Your task to perform on an android device: toggle airplane mode Image 0: 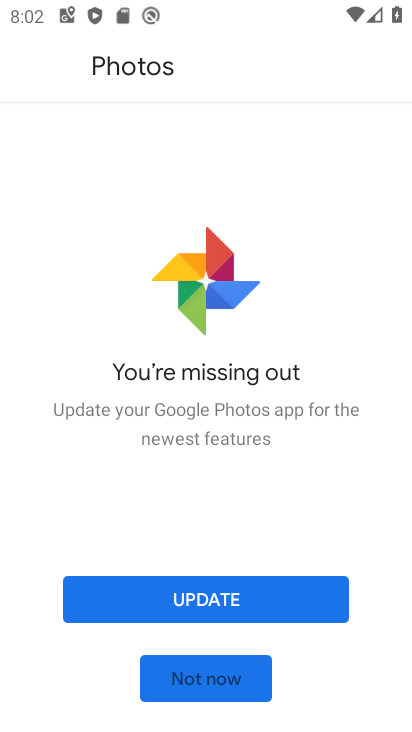
Step 0: press home button
Your task to perform on an android device: toggle airplane mode Image 1: 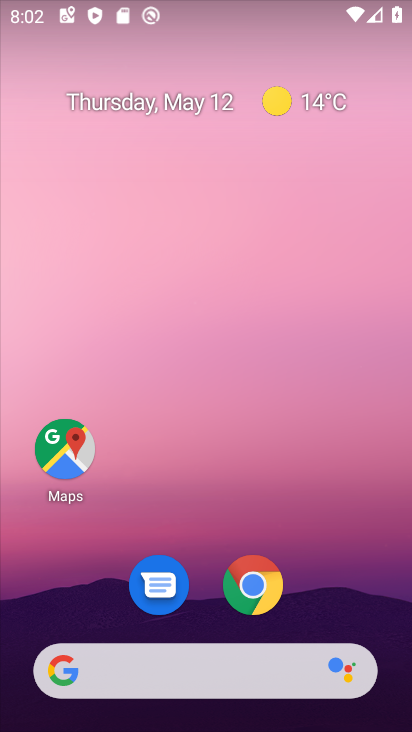
Step 1: drag from (268, 422) to (196, 54)
Your task to perform on an android device: toggle airplane mode Image 2: 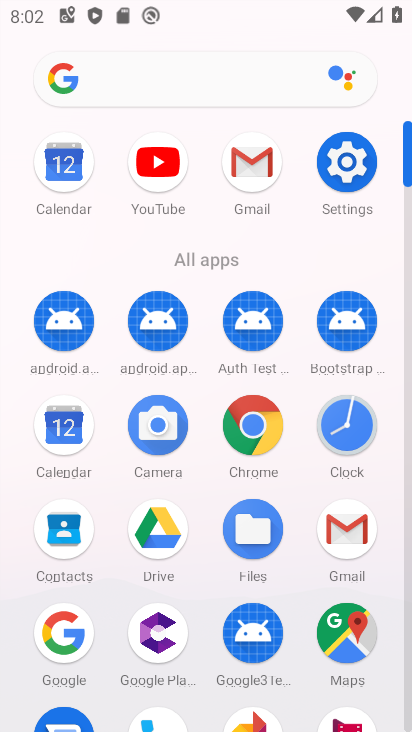
Step 2: click (346, 161)
Your task to perform on an android device: toggle airplane mode Image 3: 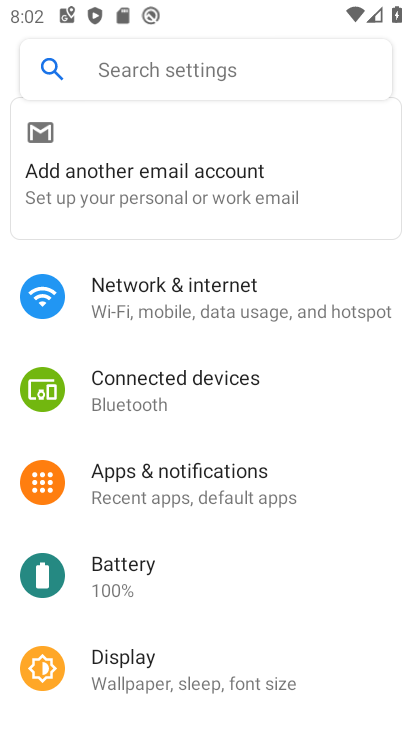
Step 3: click (246, 282)
Your task to perform on an android device: toggle airplane mode Image 4: 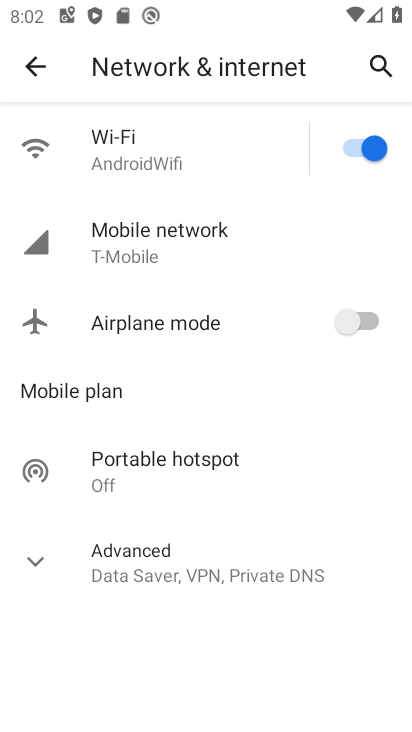
Step 4: click (358, 312)
Your task to perform on an android device: toggle airplane mode Image 5: 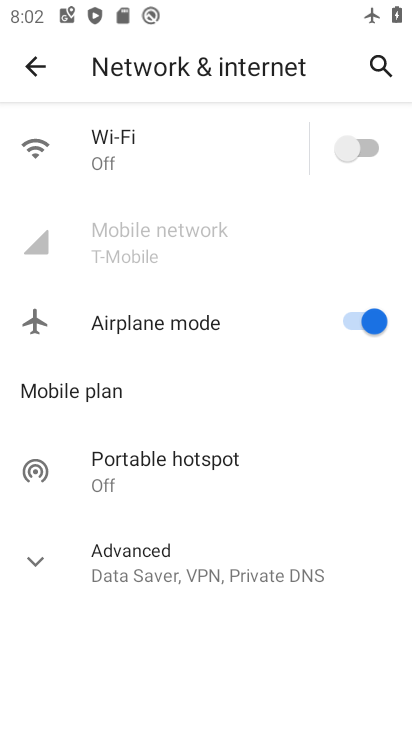
Step 5: task complete